Your task to perform on an android device: install app "Lyft - Rideshare, Bikes, Scooters & Transit" Image 0: 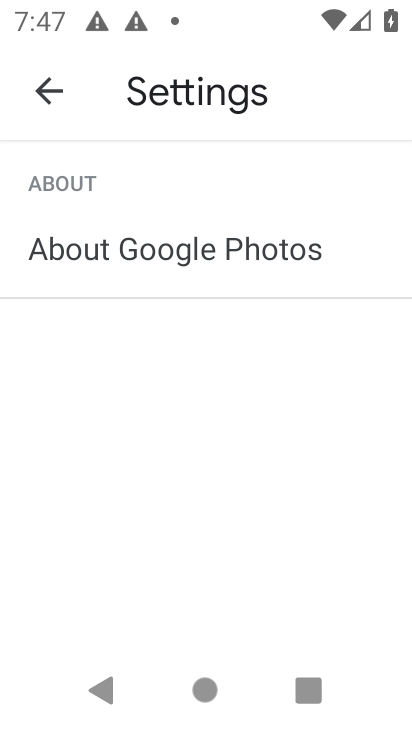
Step 0: press home button
Your task to perform on an android device: install app "Lyft - Rideshare, Bikes, Scooters & Transit" Image 1: 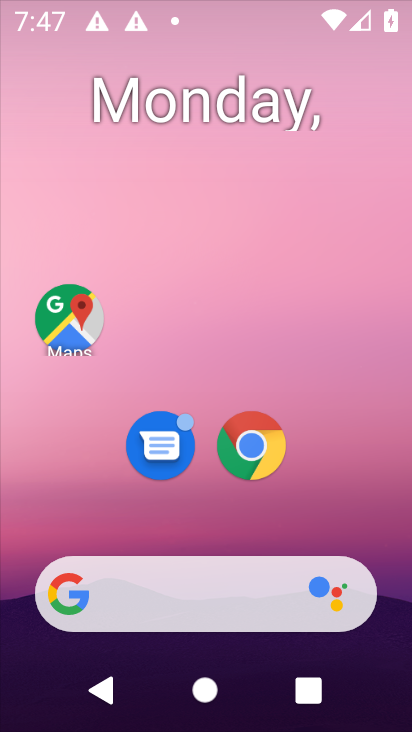
Step 1: drag from (391, 648) to (257, 65)
Your task to perform on an android device: install app "Lyft - Rideshare, Bikes, Scooters & Transit" Image 2: 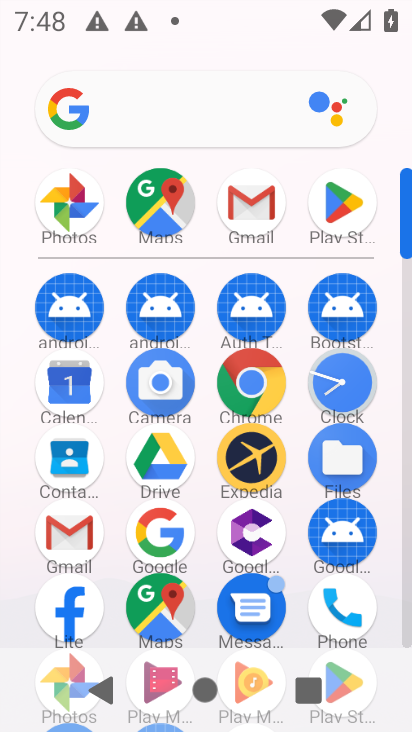
Step 2: click (347, 198)
Your task to perform on an android device: install app "Lyft - Rideshare, Bikes, Scooters & Transit" Image 3: 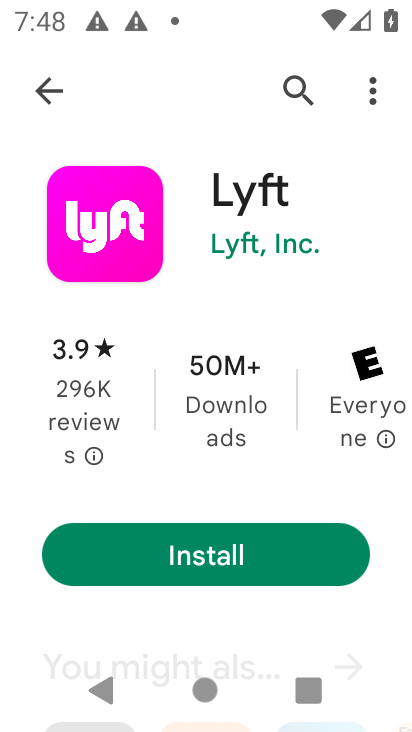
Step 3: press back button
Your task to perform on an android device: install app "Lyft - Rideshare, Bikes, Scooters & Transit" Image 4: 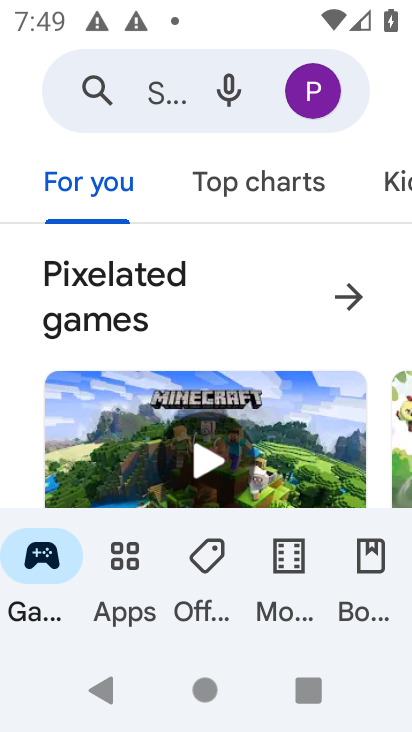
Step 4: click (164, 91)
Your task to perform on an android device: install app "Lyft - Rideshare, Bikes, Scooters & Transit" Image 5: 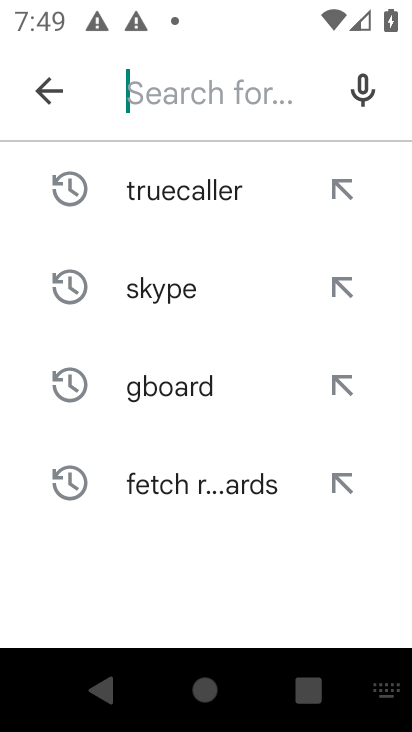
Step 5: type "Lyft - Rideshare, Bikes, Scooters & Transit"
Your task to perform on an android device: install app "Lyft - Rideshare, Bikes, Scooters & Transit" Image 6: 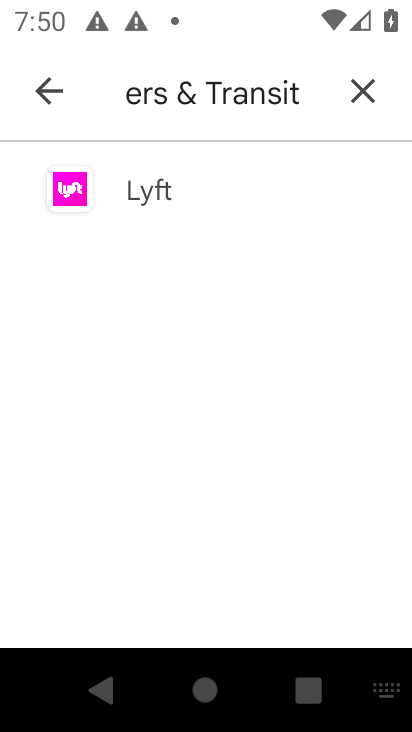
Step 6: click (183, 190)
Your task to perform on an android device: install app "Lyft - Rideshare, Bikes, Scooters & Transit" Image 7: 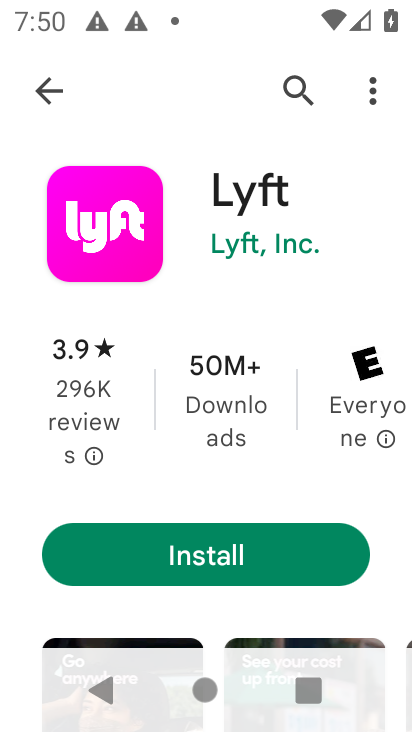
Step 7: task complete